Your task to perform on an android device: check android version Image 0: 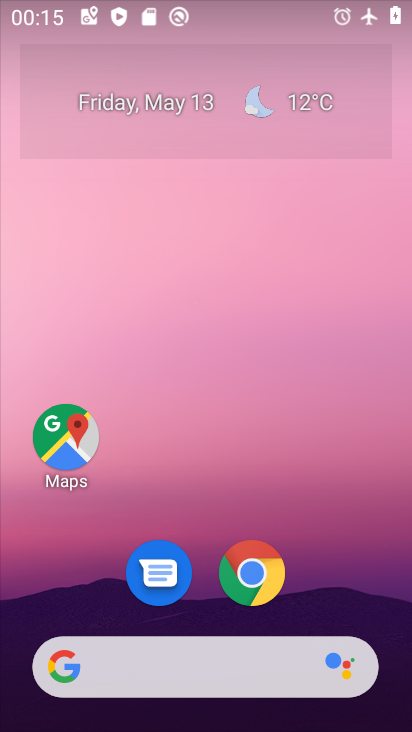
Step 0: drag from (181, 722) to (237, 4)
Your task to perform on an android device: check android version Image 1: 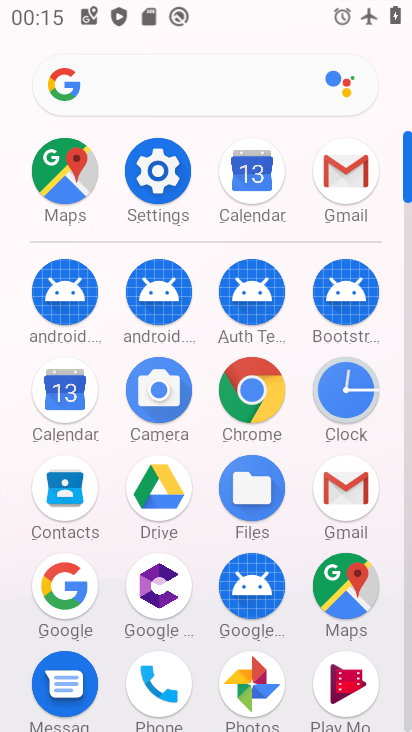
Step 1: click (167, 178)
Your task to perform on an android device: check android version Image 2: 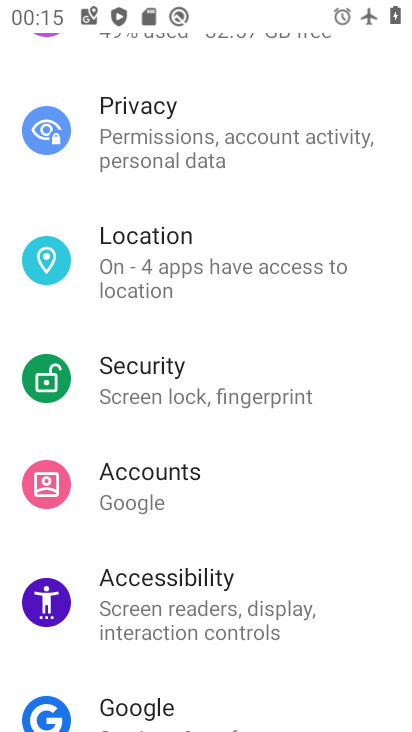
Step 2: drag from (322, 700) to (311, 65)
Your task to perform on an android device: check android version Image 3: 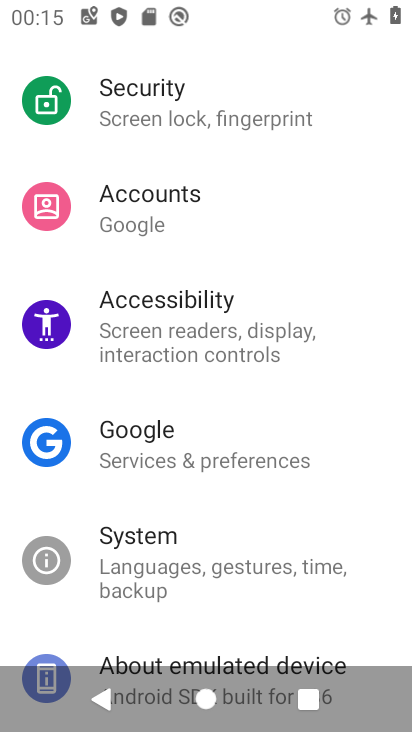
Step 3: drag from (194, 665) to (292, 62)
Your task to perform on an android device: check android version Image 4: 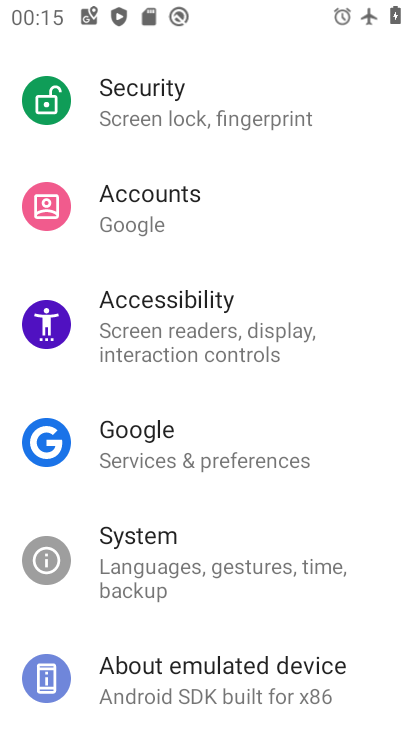
Step 4: click (257, 666)
Your task to perform on an android device: check android version Image 5: 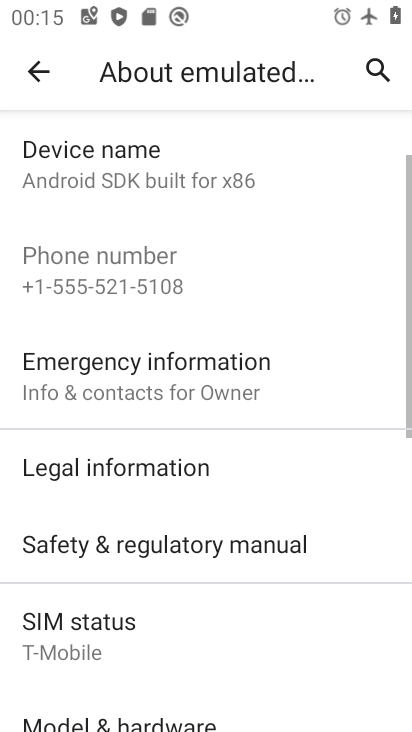
Step 5: task complete